Your task to perform on an android device: clear history in the chrome app Image 0: 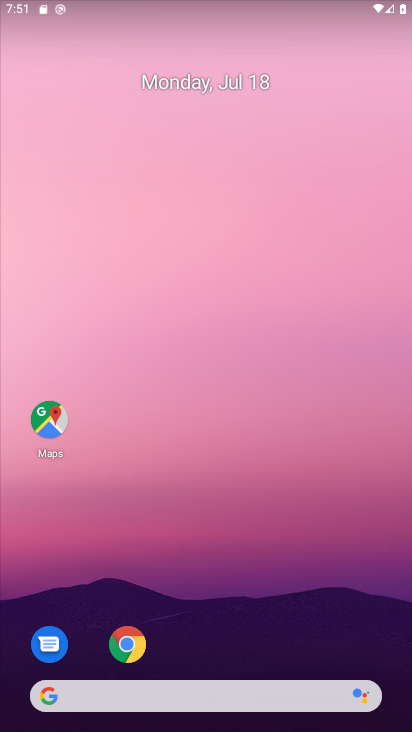
Step 0: click (120, 639)
Your task to perform on an android device: clear history in the chrome app Image 1: 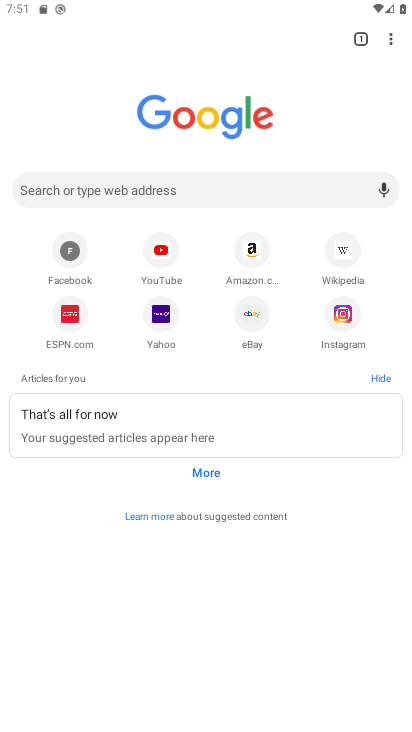
Step 1: click (390, 40)
Your task to perform on an android device: clear history in the chrome app Image 2: 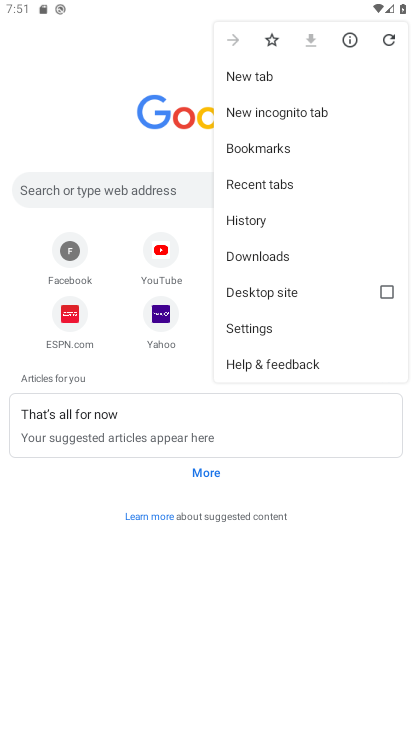
Step 2: click (299, 335)
Your task to perform on an android device: clear history in the chrome app Image 3: 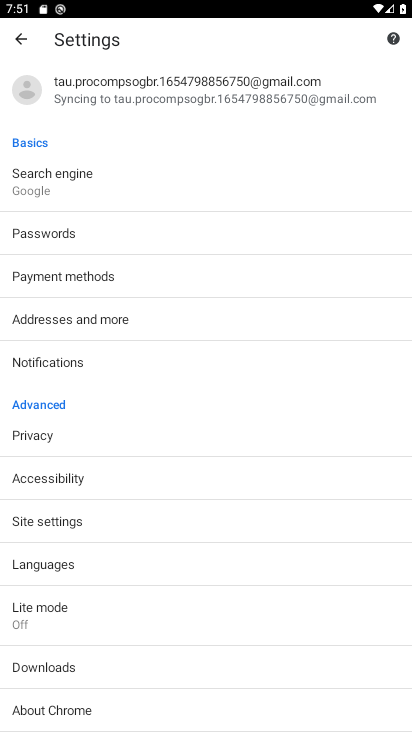
Step 3: task complete